Your task to perform on an android device: turn on location history Image 0: 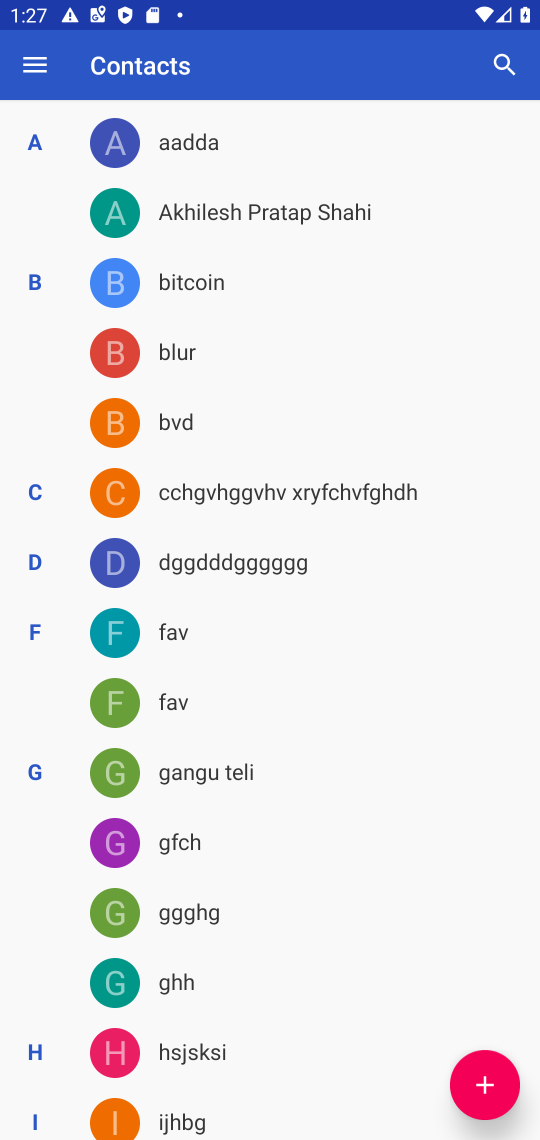
Step 0: press home button
Your task to perform on an android device: turn on location history Image 1: 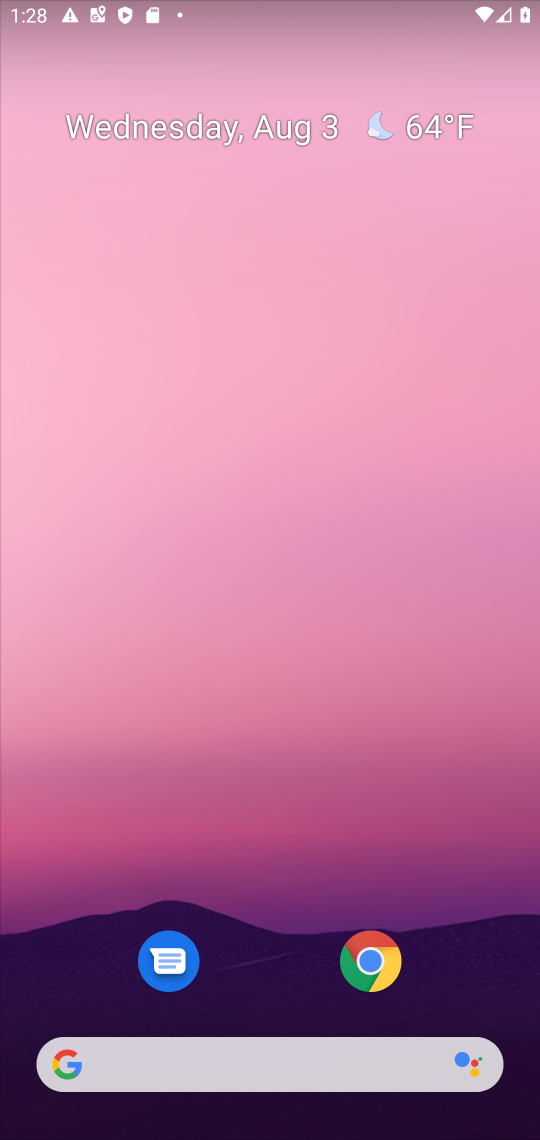
Step 1: drag from (259, 958) to (330, 72)
Your task to perform on an android device: turn on location history Image 2: 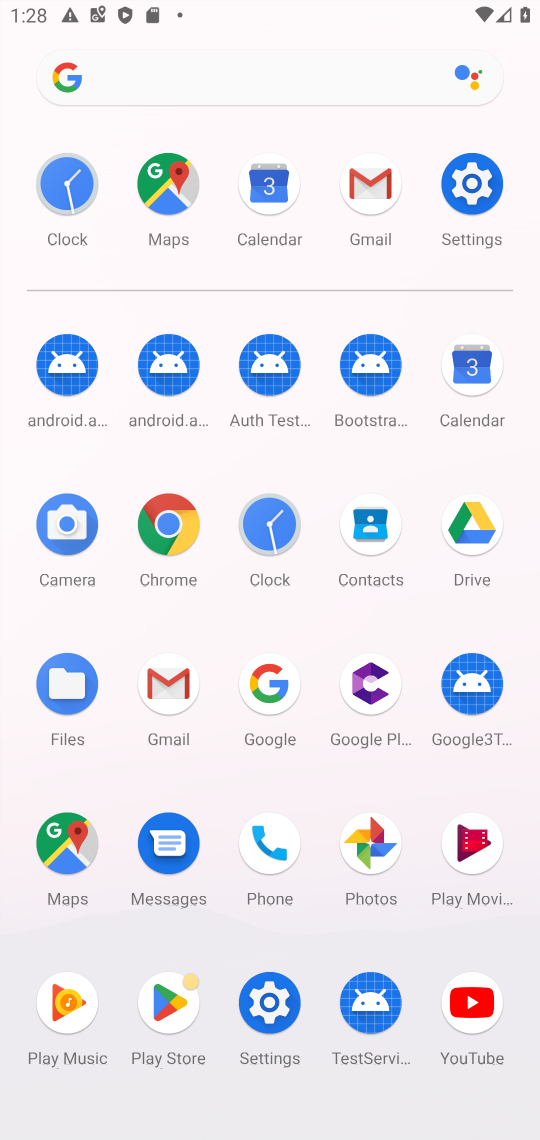
Step 2: click (173, 178)
Your task to perform on an android device: turn on location history Image 3: 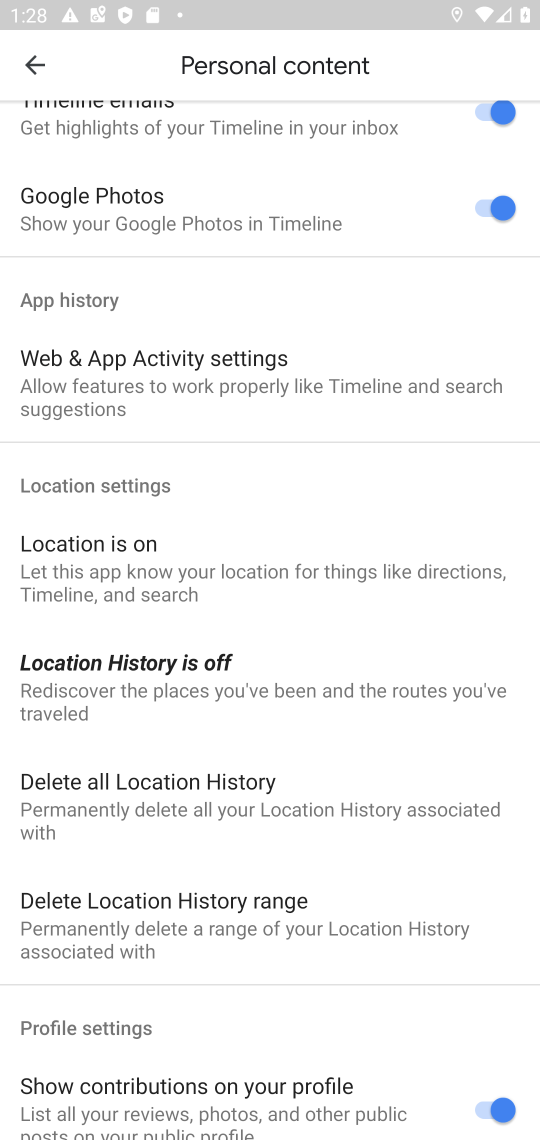
Step 3: click (36, 68)
Your task to perform on an android device: turn on location history Image 4: 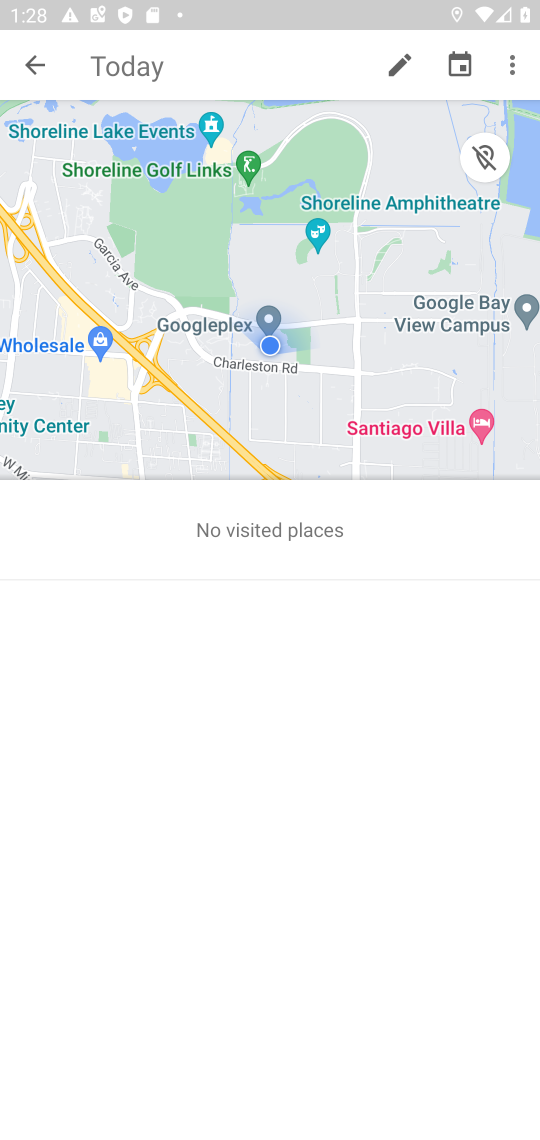
Step 4: click (513, 66)
Your task to perform on an android device: turn on location history Image 5: 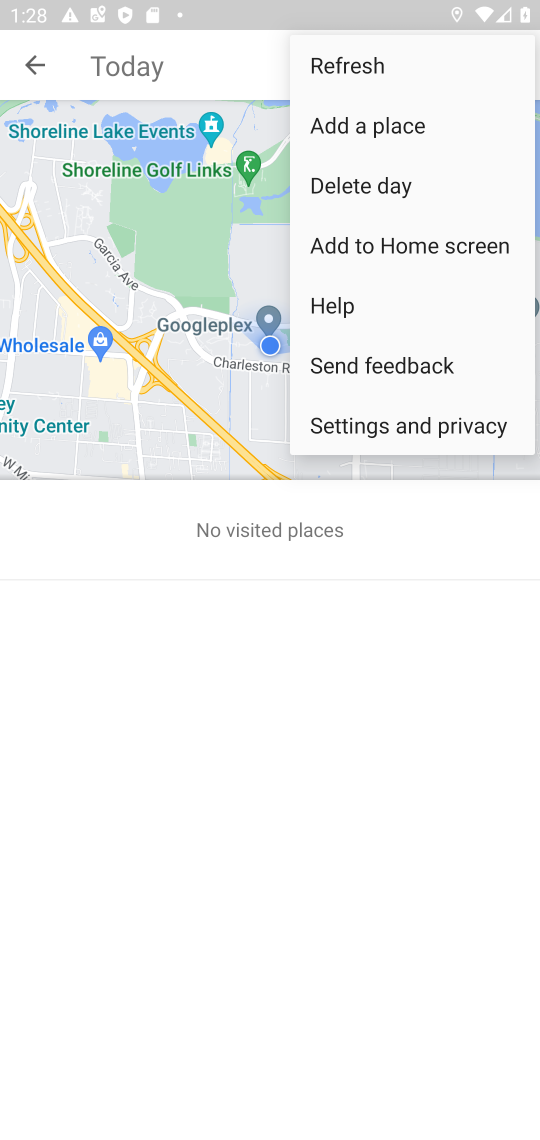
Step 5: click (373, 419)
Your task to perform on an android device: turn on location history Image 6: 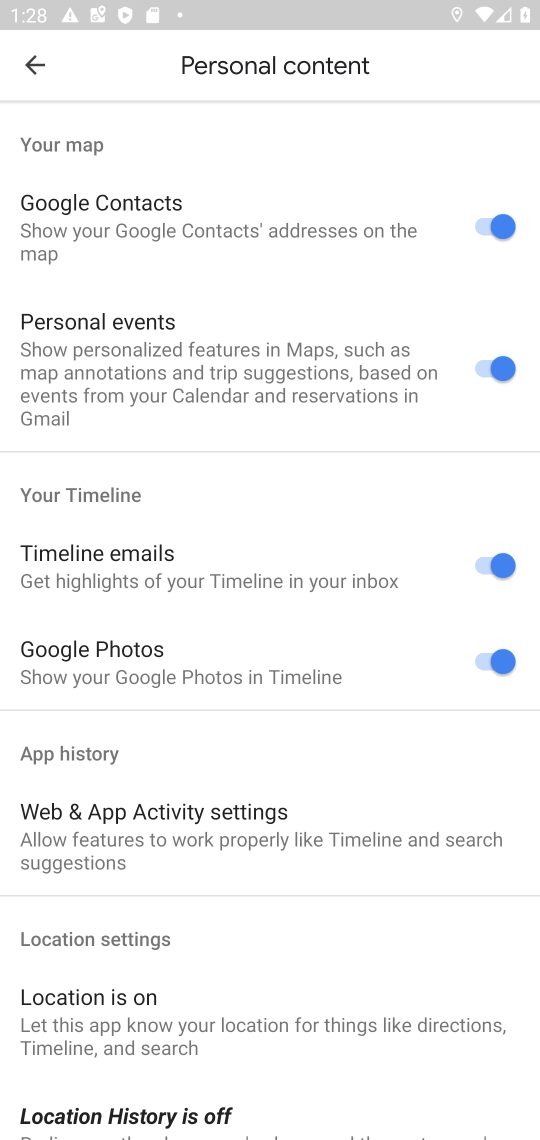
Step 6: drag from (264, 979) to (300, 584)
Your task to perform on an android device: turn on location history Image 7: 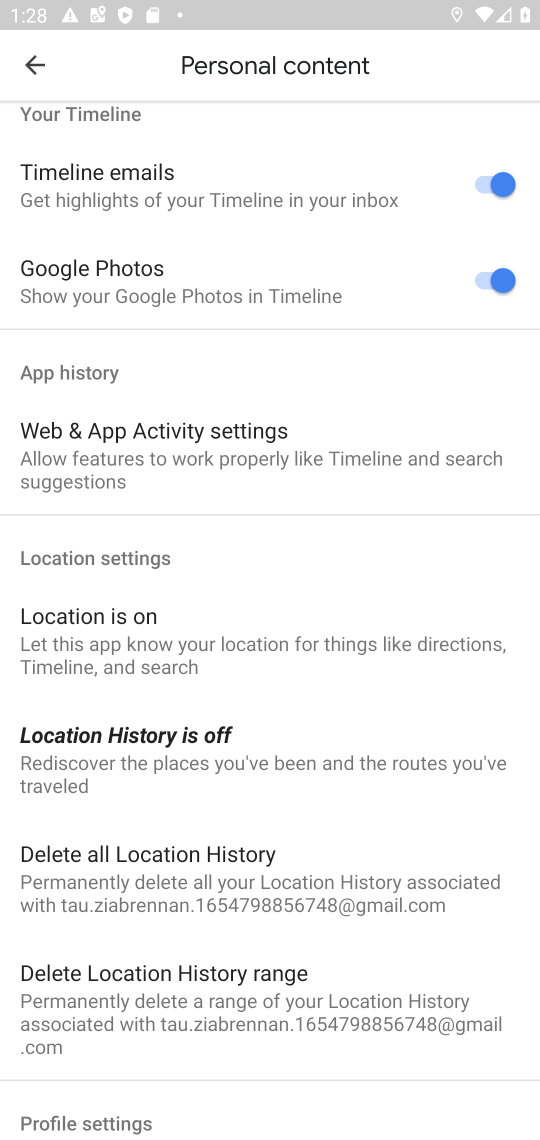
Step 7: click (134, 768)
Your task to perform on an android device: turn on location history Image 8: 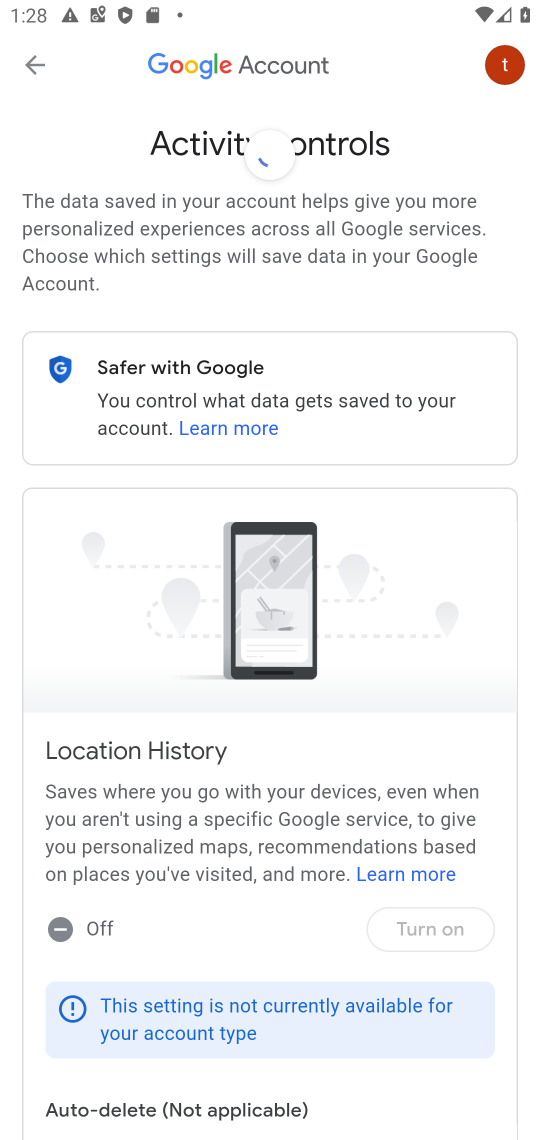
Step 8: click (422, 927)
Your task to perform on an android device: turn on location history Image 9: 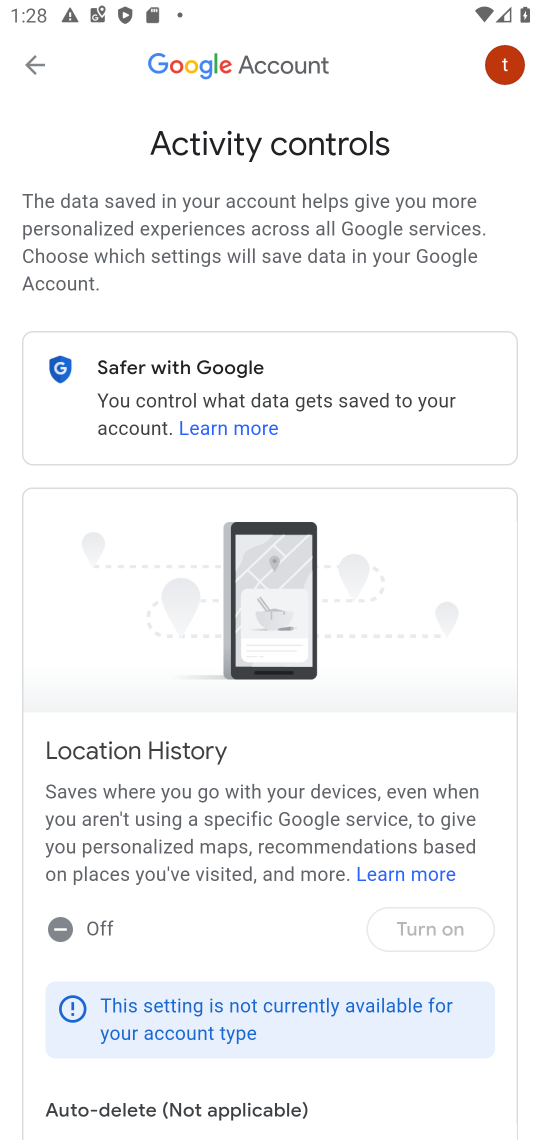
Step 9: click (422, 927)
Your task to perform on an android device: turn on location history Image 10: 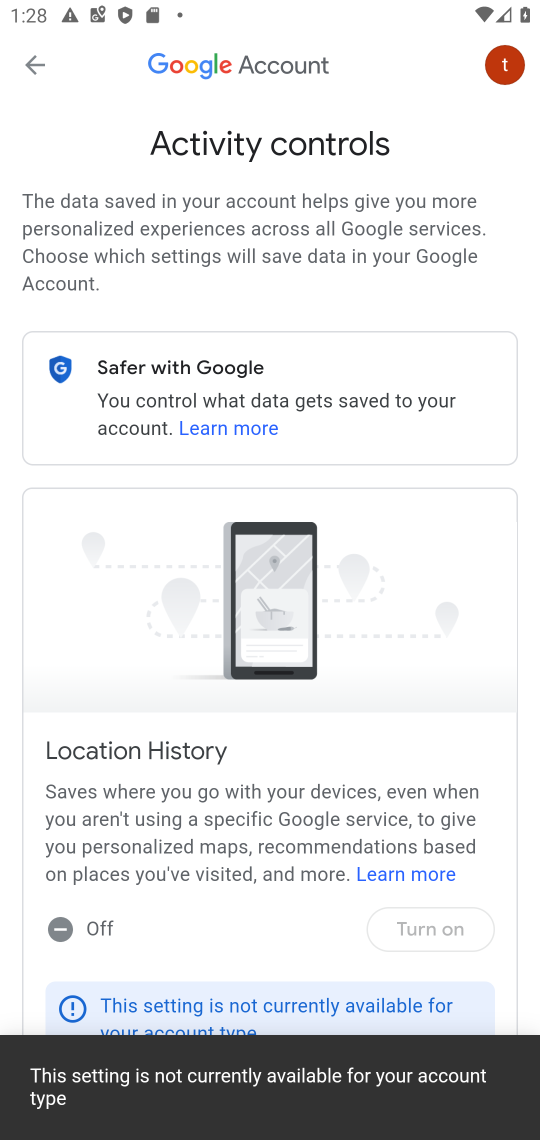
Step 10: task complete